Your task to perform on an android device: change the clock style Image 0: 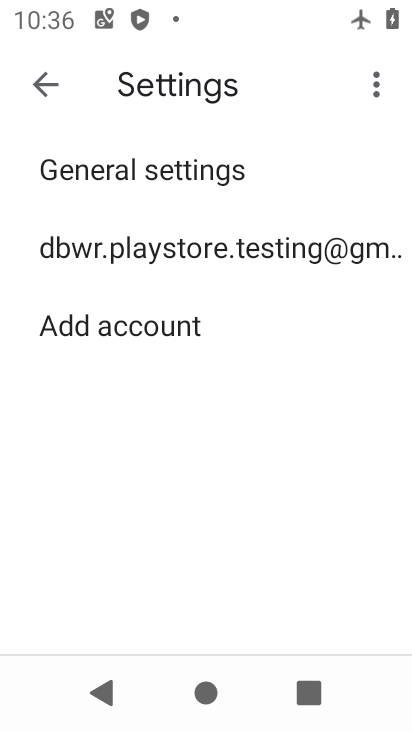
Step 0: press home button
Your task to perform on an android device: change the clock style Image 1: 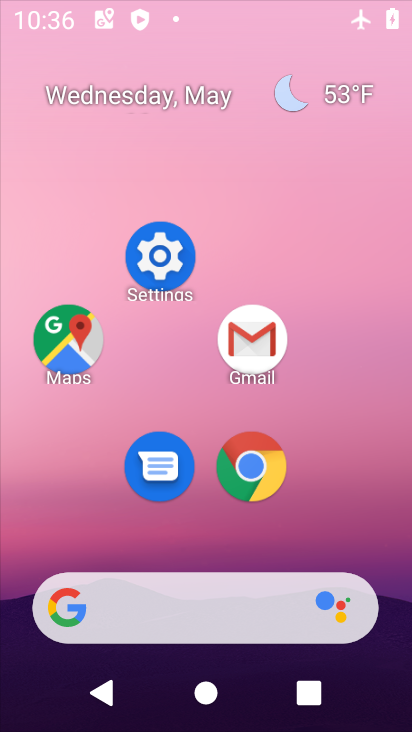
Step 1: drag from (204, 535) to (265, 157)
Your task to perform on an android device: change the clock style Image 2: 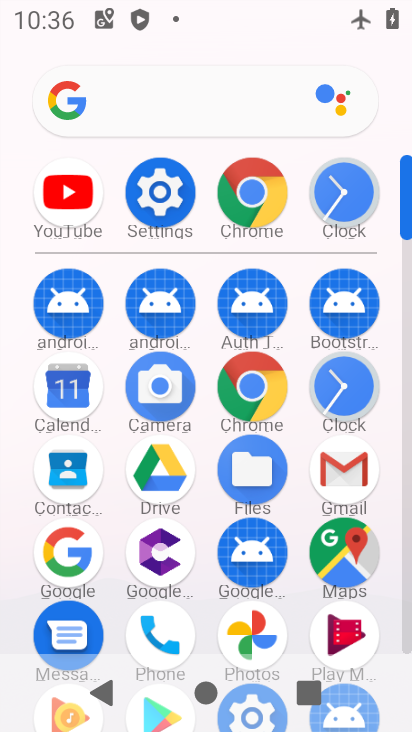
Step 2: click (345, 390)
Your task to perform on an android device: change the clock style Image 3: 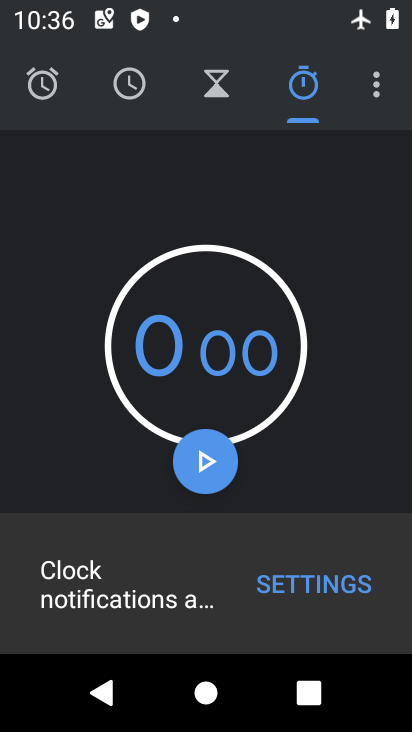
Step 3: click (377, 69)
Your task to perform on an android device: change the clock style Image 4: 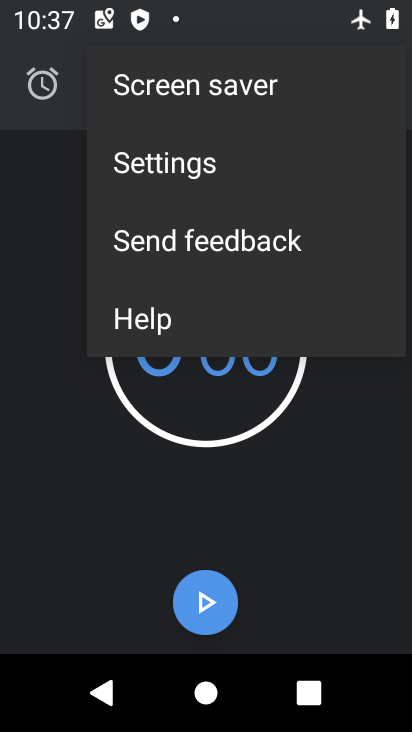
Step 4: click (183, 161)
Your task to perform on an android device: change the clock style Image 5: 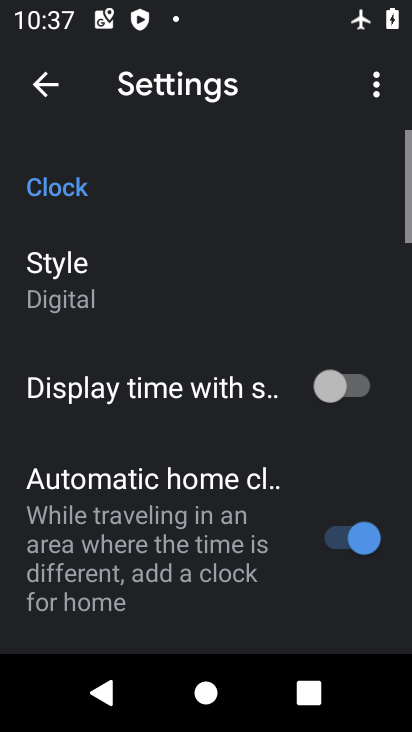
Step 5: click (95, 315)
Your task to perform on an android device: change the clock style Image 6: 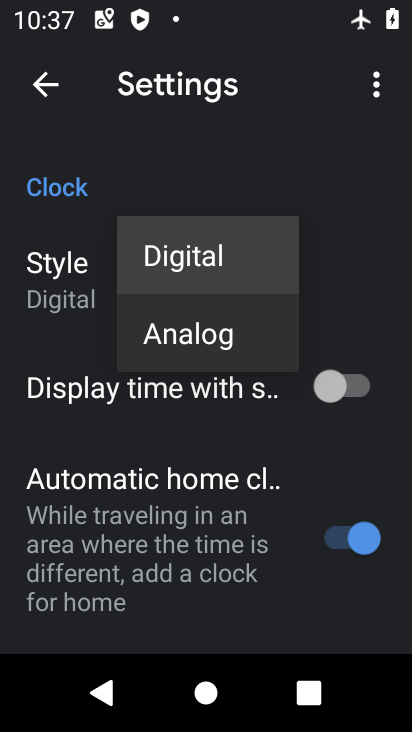
Step 6: click (242, 314)
Your task to perform on an android device: change the clock style Image 7: 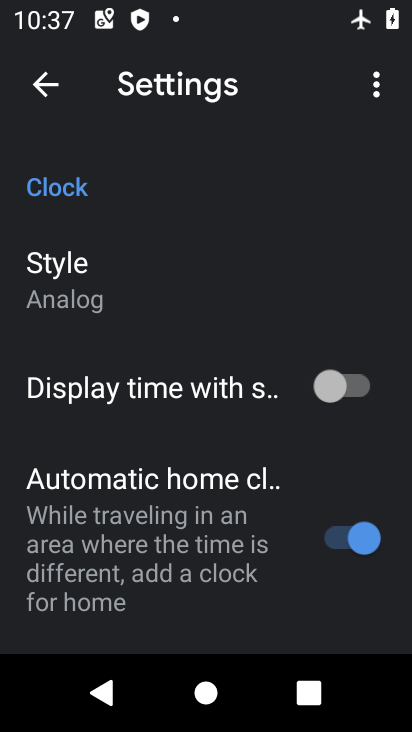
Step 7: click (161, 273)
Your task to perform on an android device: change the clock style Image 8: 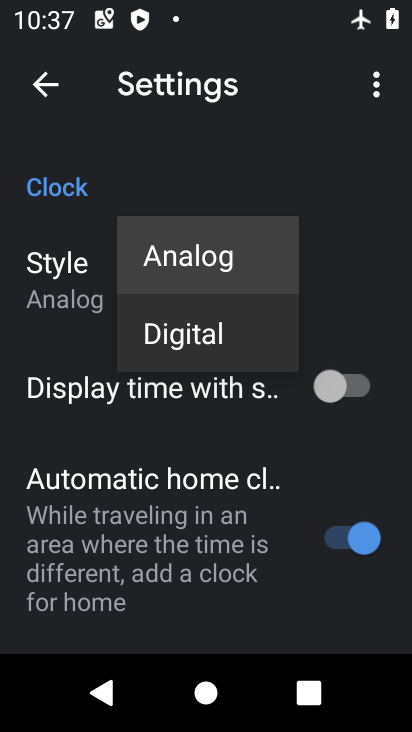
Step 8: task complete